Your task to perform on an android device: Open Chrome and go to settings Image 0: 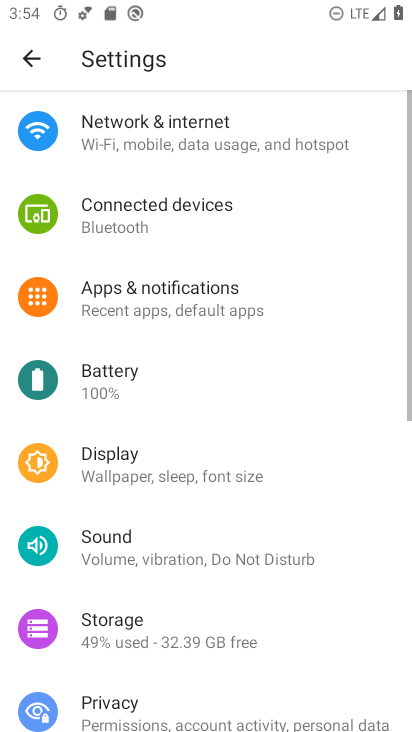
Step 0: press home button
Your task to perform on an android device: Open Chrome and go to settings Image 1: 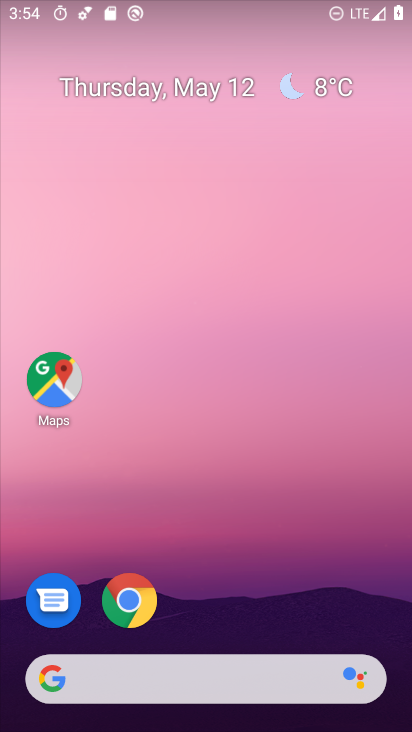
Step 1: click (125, 599)
Your task to perform on an android device: Open Chrome and go to settings Image 2: 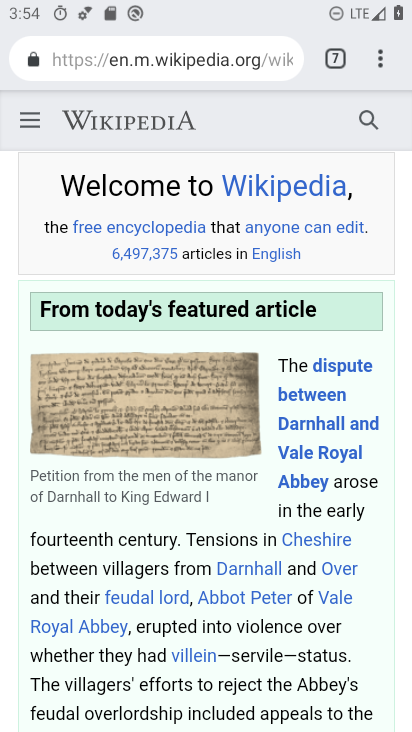
Step 2: click (382, 65)
Your task to perform on an android device: Open Chrome and go to settings Image 3: 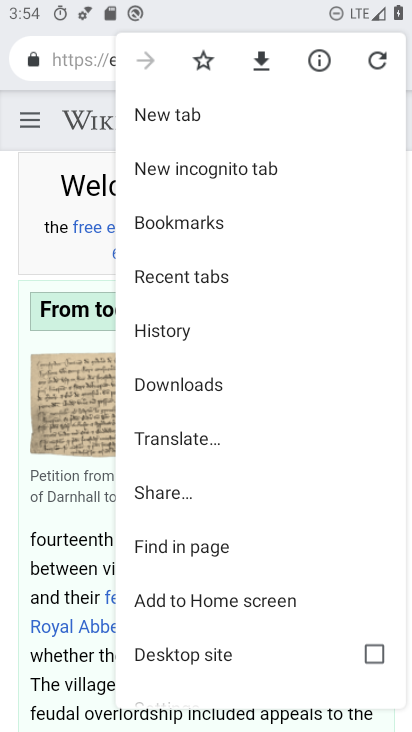
Step 3: drag from (201, 636) to (209, 214)
Your task to perform on an android device: Open Chrome and go to settings Image 4: 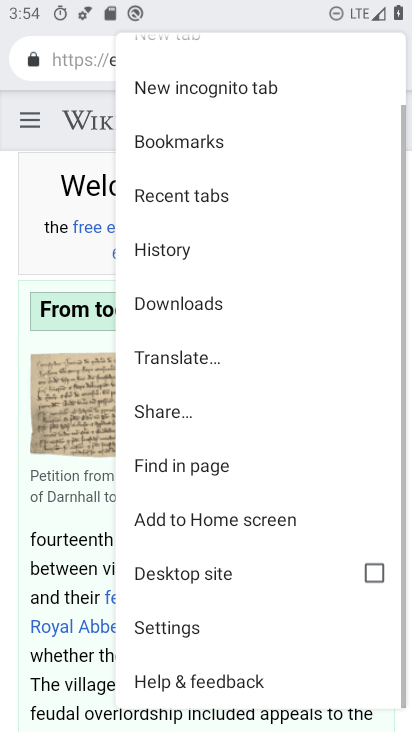
Step 4: click (167, 626)
Your task to perform on an android device: Open Chrome and go to settings Image 5: 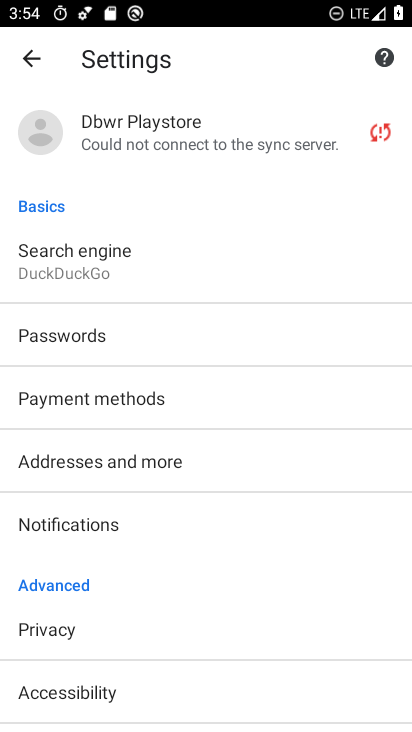
Step 5: task complete